Your task to perform on an android device: check google app version Image 0: 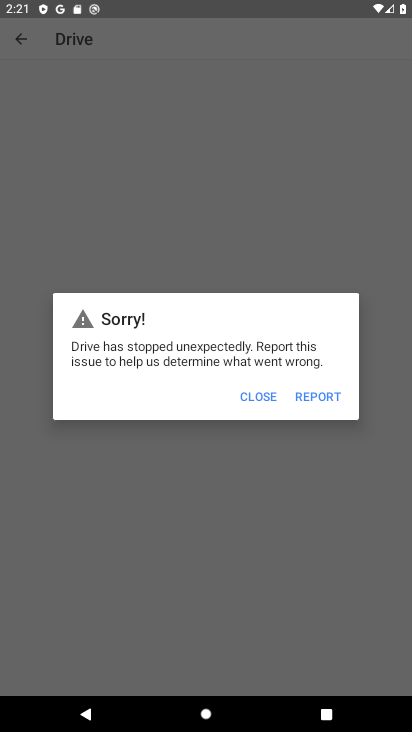
Step 0: press home button
Your task to perform on an android device: check google app version Image 1: 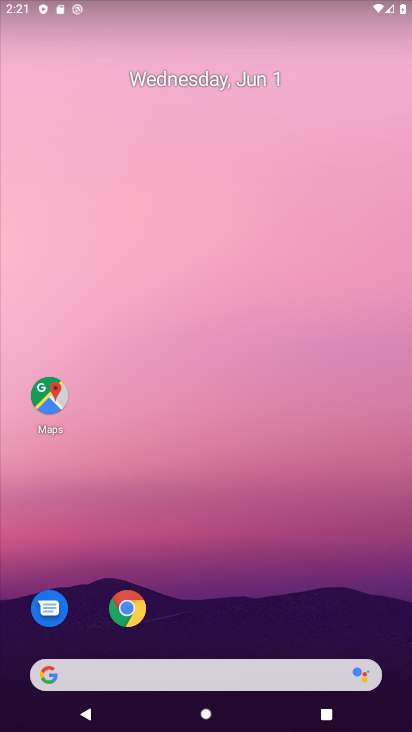
Step 1: drag from (211, 573) to (224, 9)
Your task to perform on an android device: check google app version Image 2: 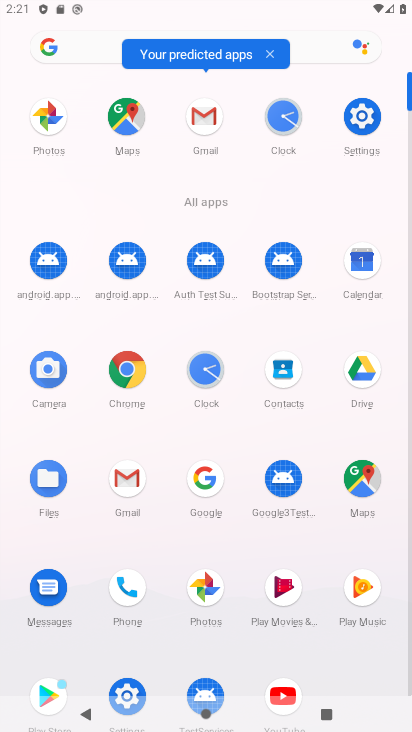
Step 2: click (213, 478)
Your task to perform on an android device: check google app version Image 3: 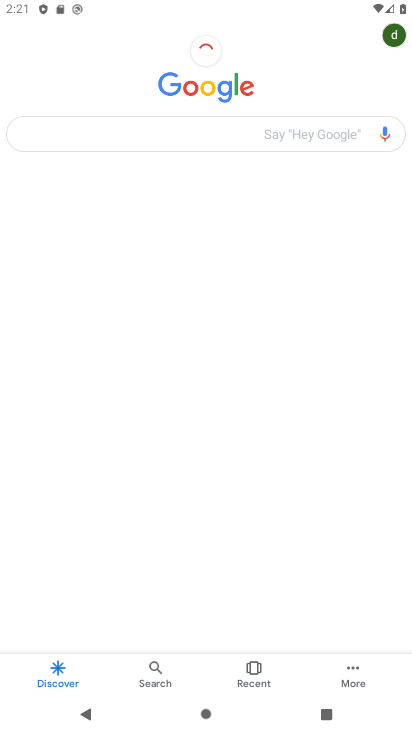
Step 3: click (363, 682)
Your task to perform on an android device: check google app version Image 4: 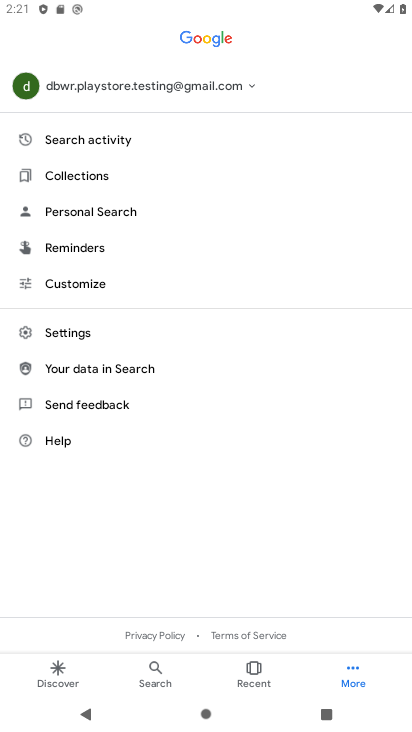
Step 4: click (48, 322)
Your task to perform on an android device: check google app version Image 5: 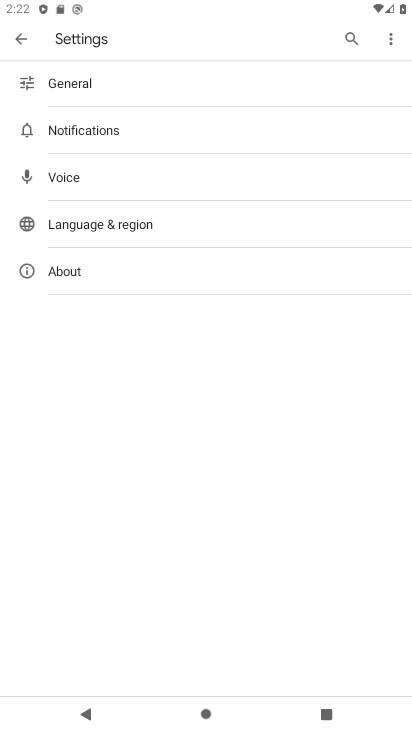
Step 5: click (51, 260)
Your task to perform on an android device: check google app version Image 6: 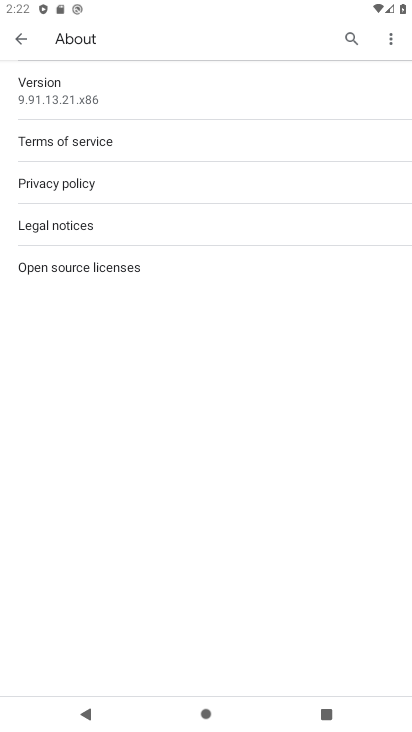
Step 6: click (72, 98)
Your task to perform on an android device: check google app version Image 7: 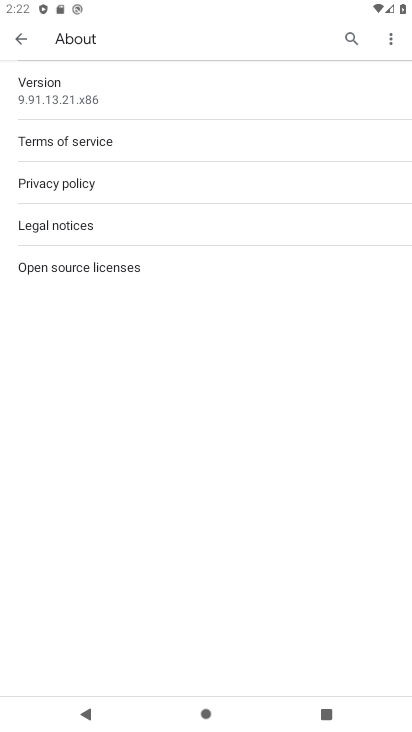
Step 7: task complete